Your task to perform on an android device: check storage Image 0: 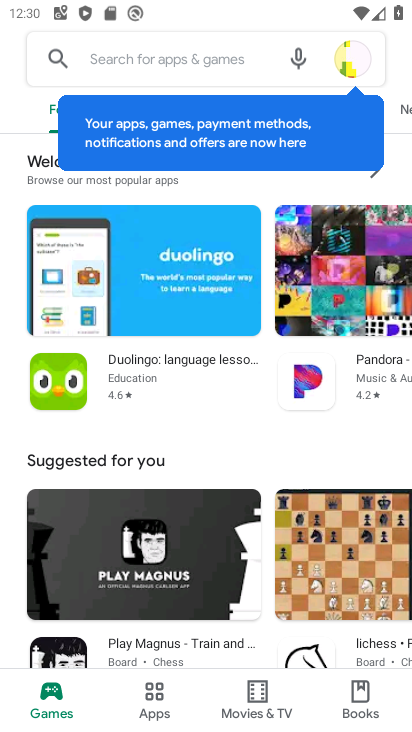
Step 0: press home button
Your task to perform on an android device: check storage Image 1: 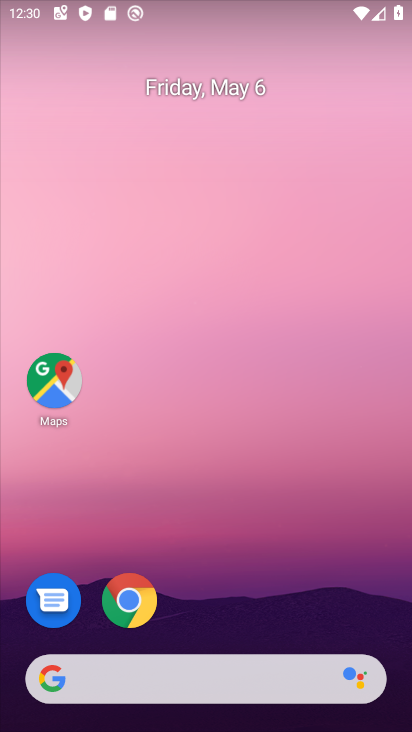
Step 1: drag from (307, 606) to (273, 96)
Your task to perform on an android device: check storage Image 2: 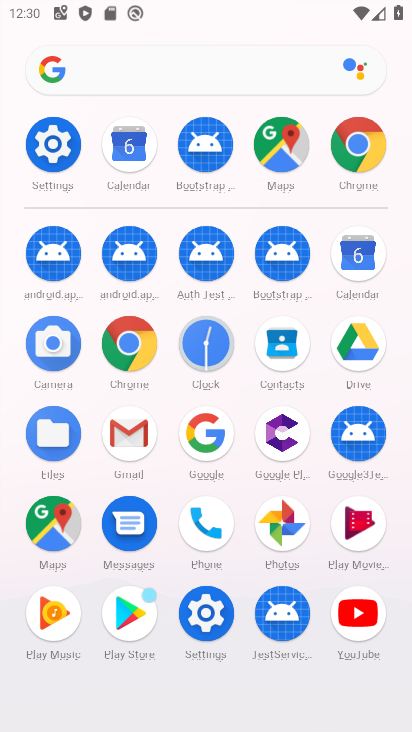
Step 2: click (219, 621)
Your task to perform on an android device: check storage Image 3: 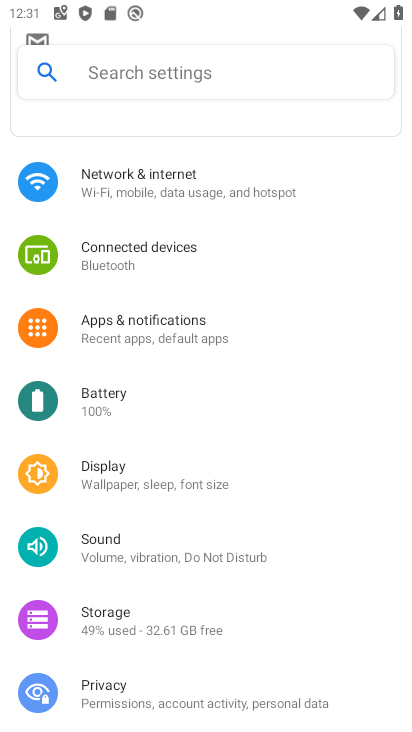
Step 3: click (184, 629)
Your task to perform on an android device: check storage Image 4: 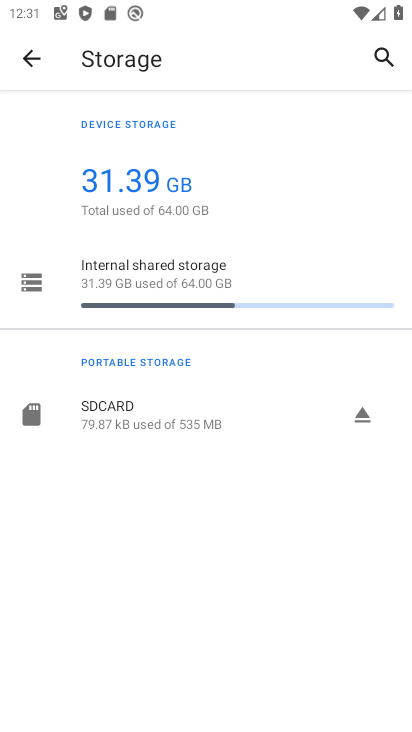
Step 4: click (205, 257)
Your task to perform on an android device: check storage Image 5: 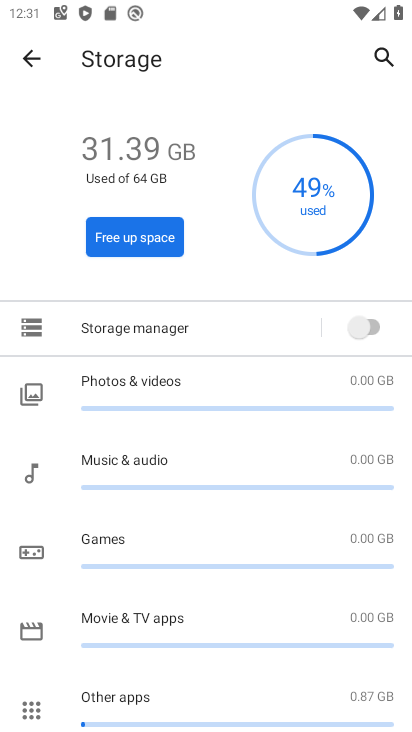
Step 5: task complete